Your task to perform on an android device: turn on airplane mode Image 0: 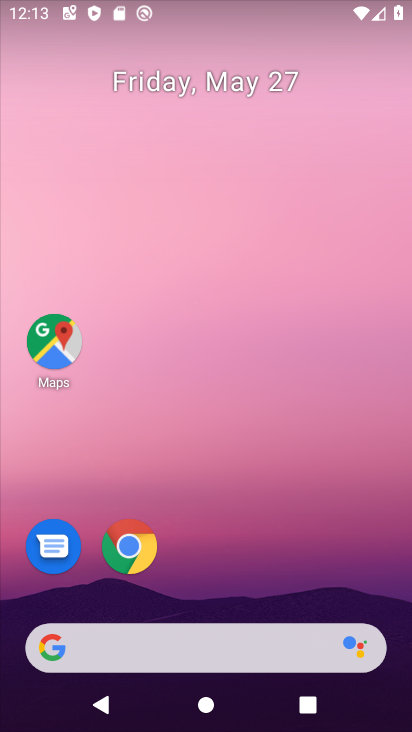
Step 0: click (137, 61)
Your task to perform on an android device: turn on airplane mode Image 1: 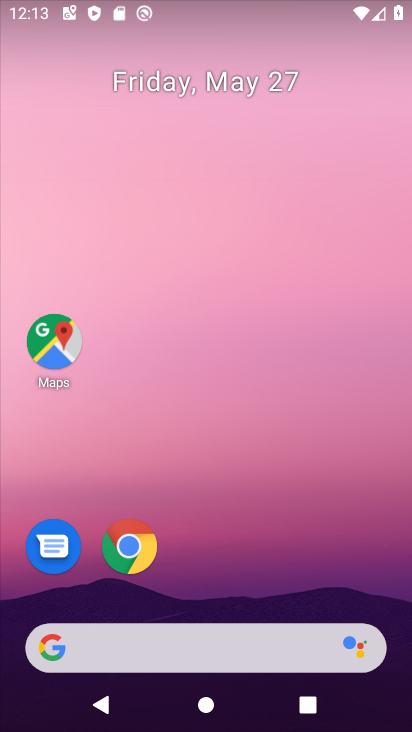
Step 1: drag from (249, 530) to (214, 149)
Your task to perform on an android device: turn on airplane mode Image 2: 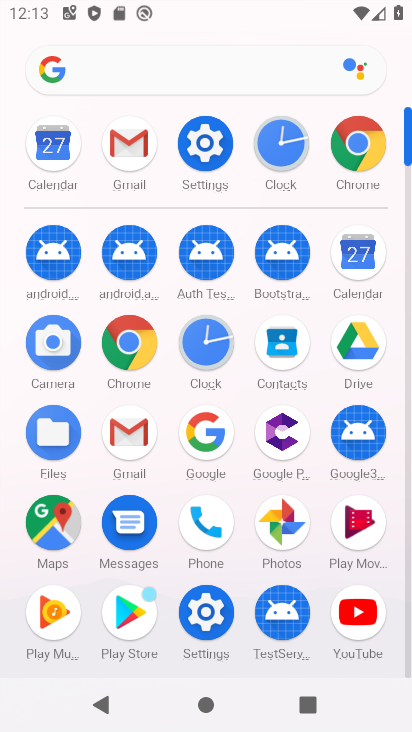
Step 2: click (200, 140)
Your task to perform on an android device: turn on airplane mode Image 3: 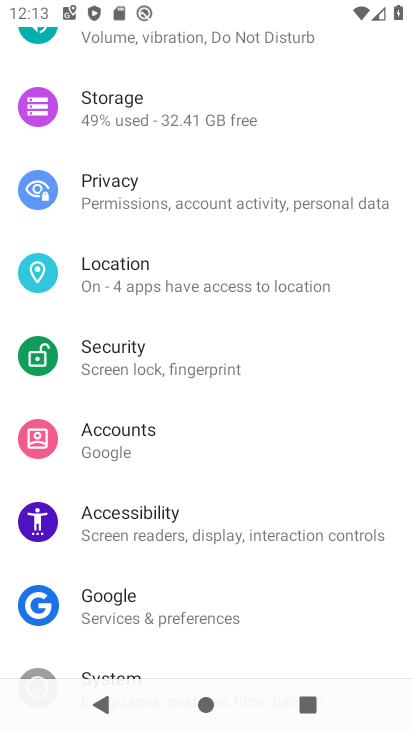
Step 3: drag from (225, 163) to (257, 587)
Your task to perform on an android device: turn on airplane mode Image 4: 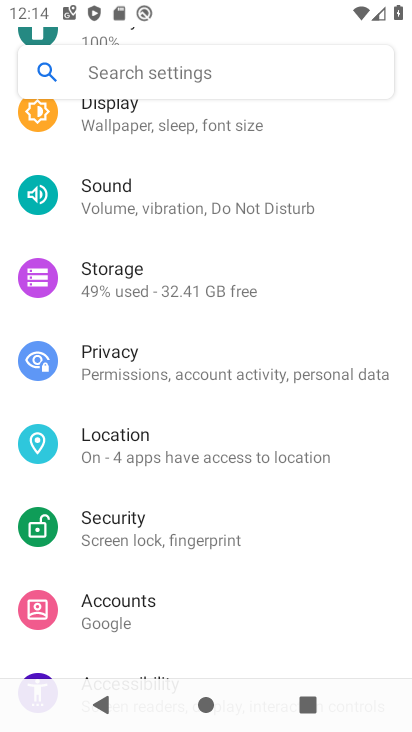
Step 4: drag from (178, 268) to (229, 627)
Your task to perform on an android device: turn on airplane mode Image 5: 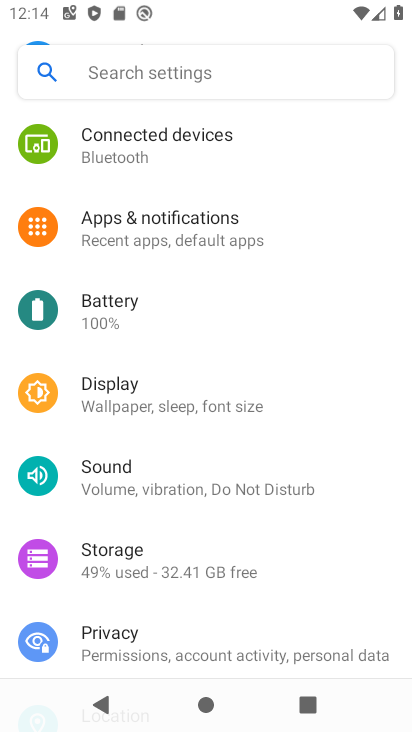
Step 5: drag from (151, 192) to (250, 645)
Your task to perform on an android device: turn on airplane mode Image 6: 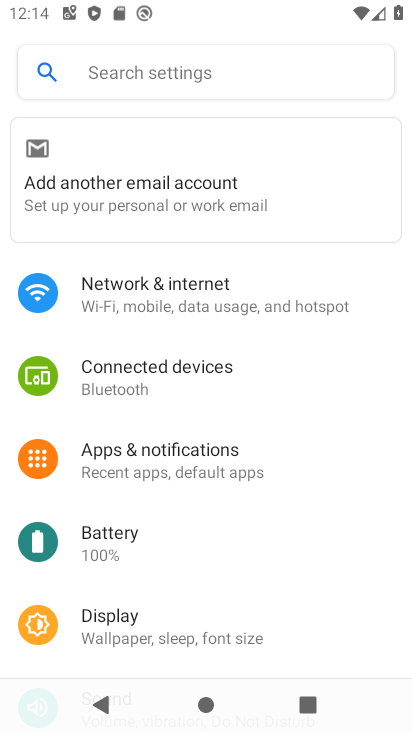
Step 6: click (161, 292)
Your task to perform on an android device: turn on airplane mode Image 7: 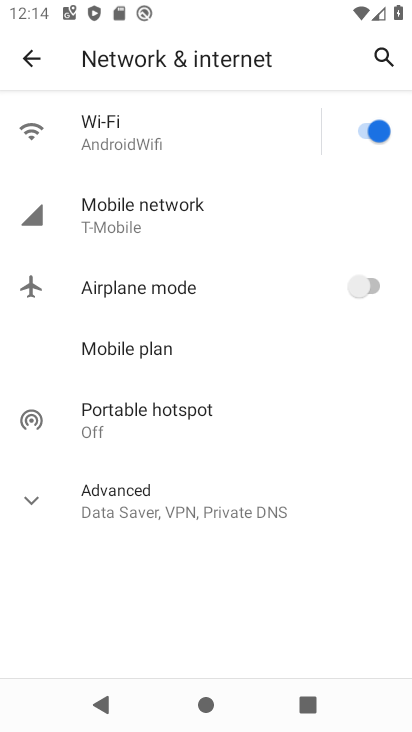
Step 7: click (357, 288)
Your task to perform on an android device: turn on airplane mode Image 8: 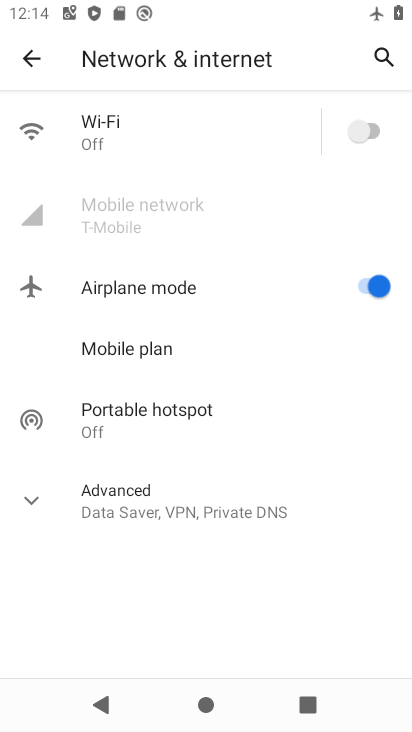
Step 8: task complete